Your task to perform on an android device: turn off sleep mode Image 0: 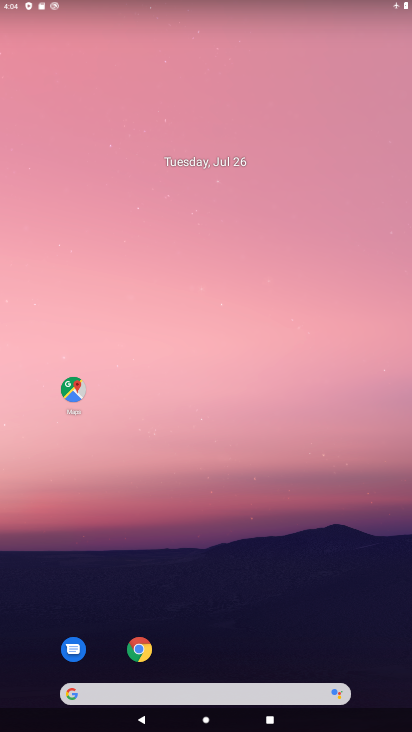
Step 0: drag from (211, 622) to (179, 171)
Your task to perform on an android device: turn off sleep mode Image 1: 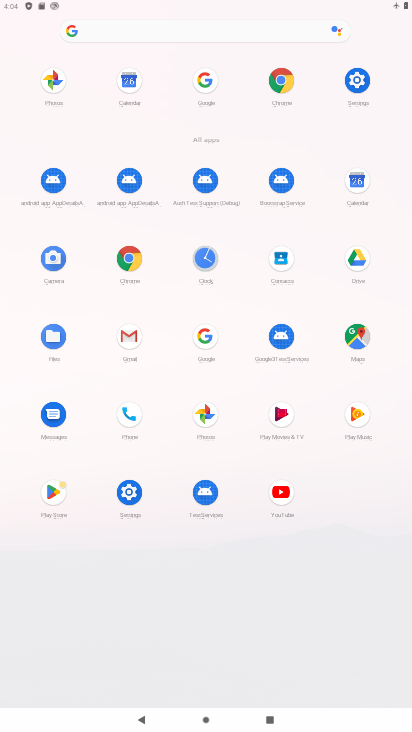
Step 1: click (367, 76)
Your task to perform on an android device: turn off sleep mode Image 2: 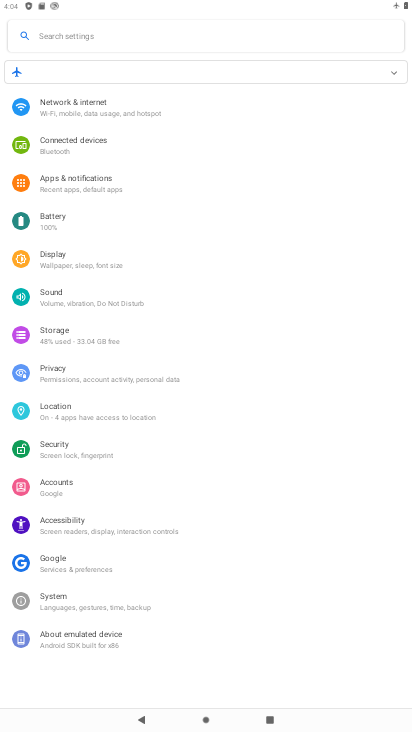
Step 2: click (125, 263)
Your task to perform on an android device: turn off sleep mode Image 3: 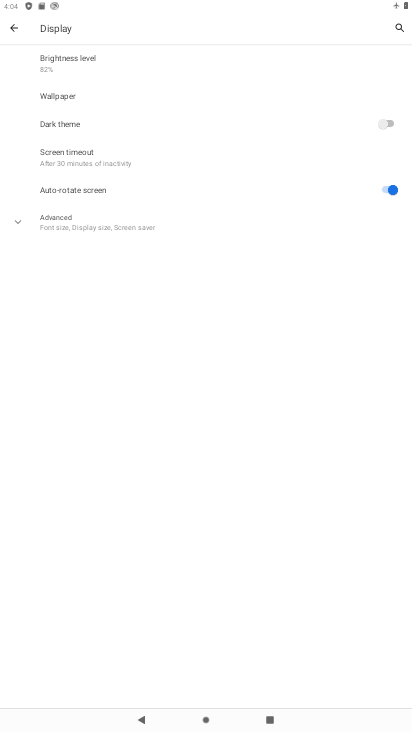
Step 3: click (57, 165)
Your task to perform on an android device: turn off sleep mode Image 4: 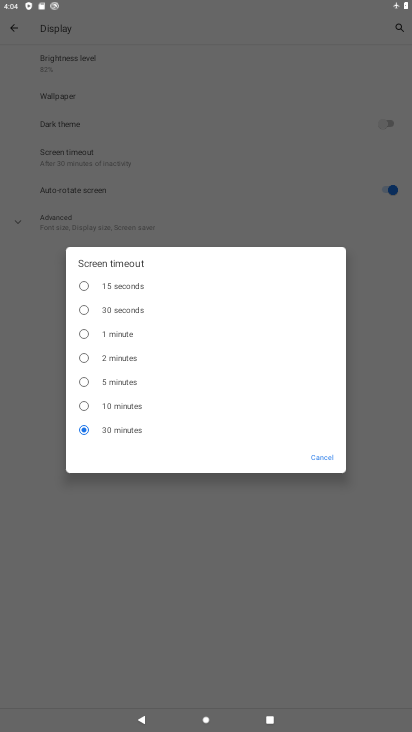
Step 4: click (140, 339)
Your task to perform on an android device: turn off sleep mode Image 5: 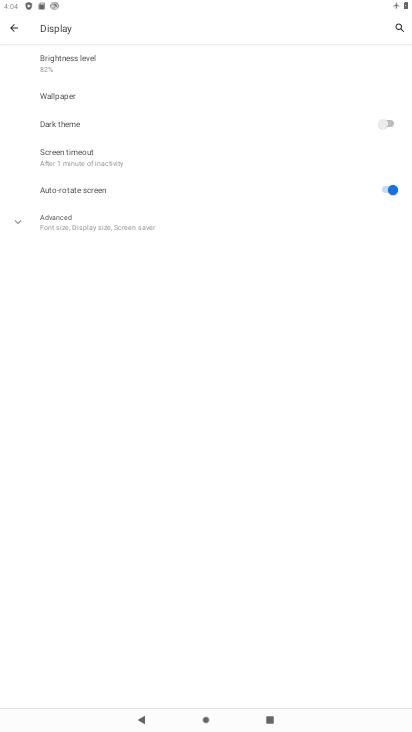
Step 5: task complete